Your task to perform on an android device: When is my next meeting? Image 0: 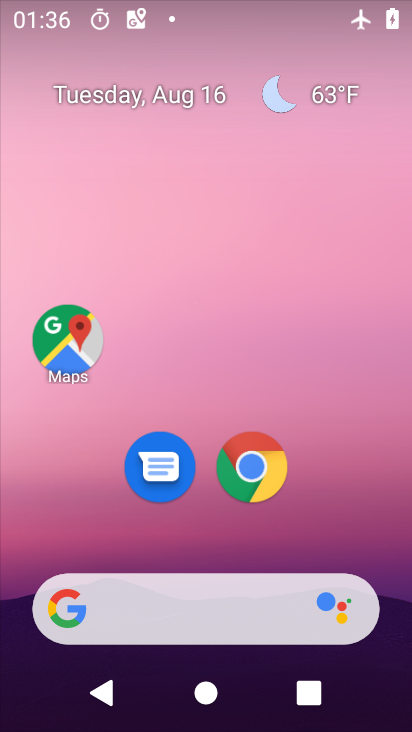
Step 0: press home button
Your task to perform on an android device: When is my next meeting? Image 1: 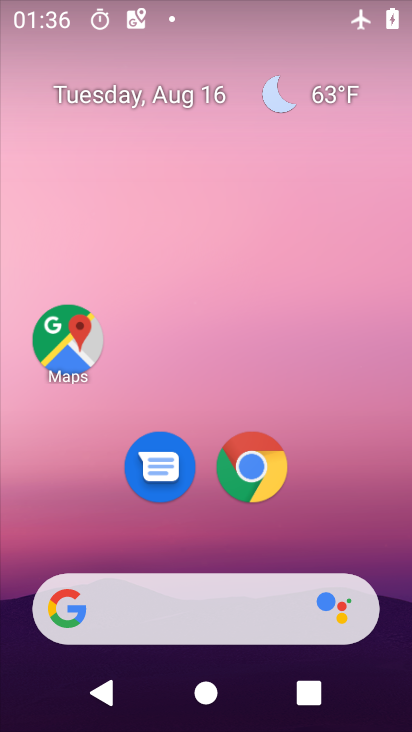
Step 1: drag from (381, 543) to (372, 136)
Your task to perform on an android device: When is my next meeting? Image 2: 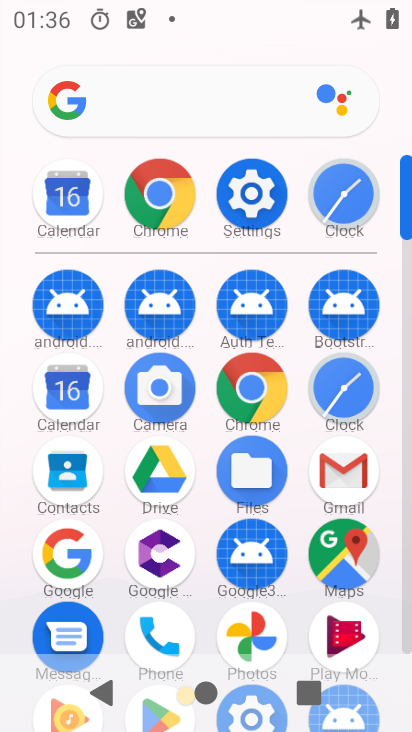
Step 2: click (63, 385)
Your task to perform on an android device: When is my next meeting? Image 3: 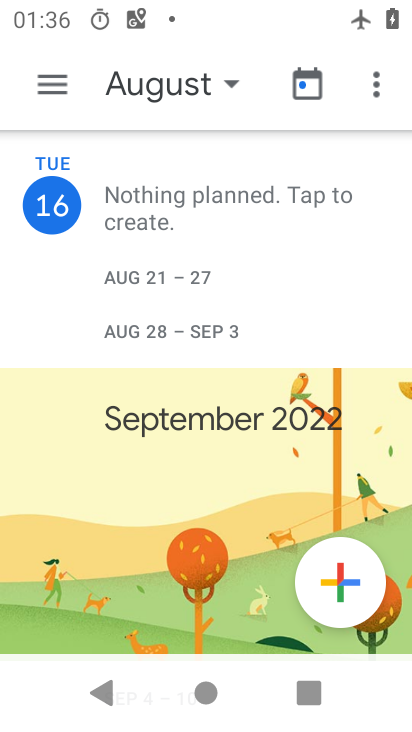
Step 3: task complete